Your task to perform on an android device: stop showing notifications on the lock screen Image 0: 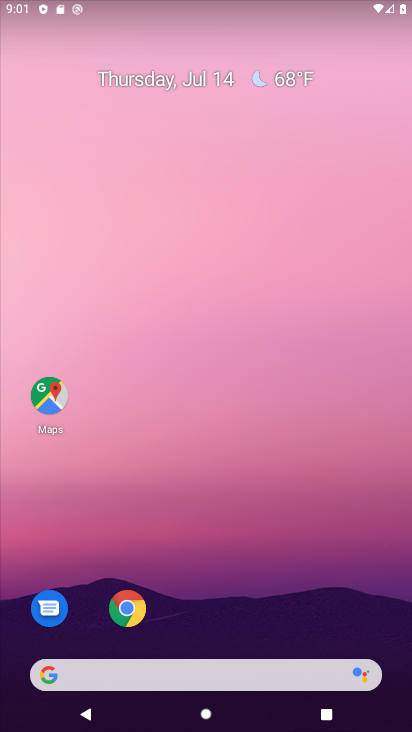
Step 0: drag from (217, 664) to (216, 140)
Your task to perform on an android device: stop showing notifications on the lock screen Image 1: 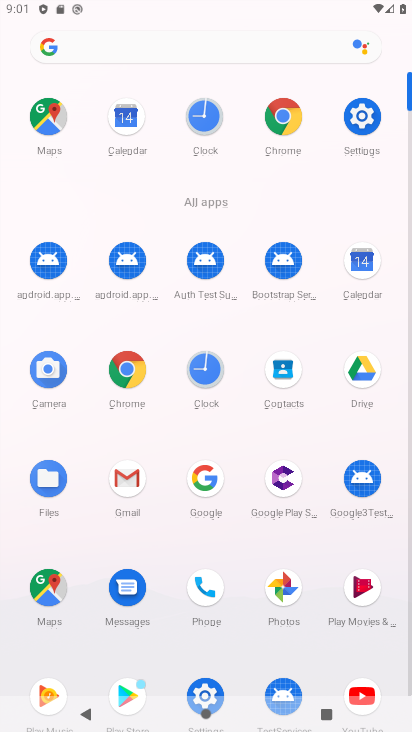
Step 1: click (361, 133)
Your task to perform on an android device: stop showing notifications on the lock screen Image 2: 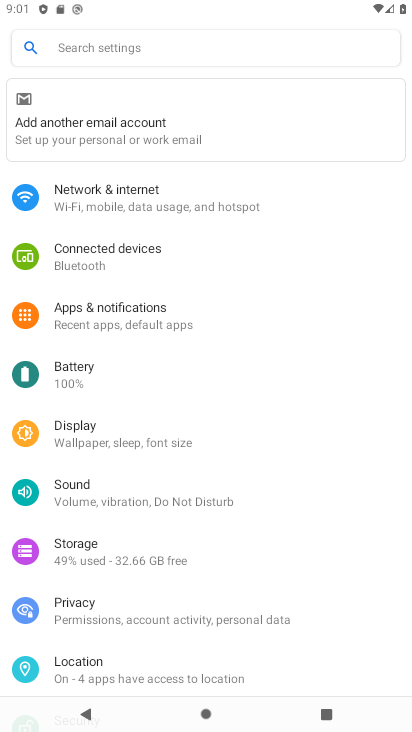
Step 2: click (93, 320)
Your task to perform on an android device: stop showing notifications on the lock screen Image 3: 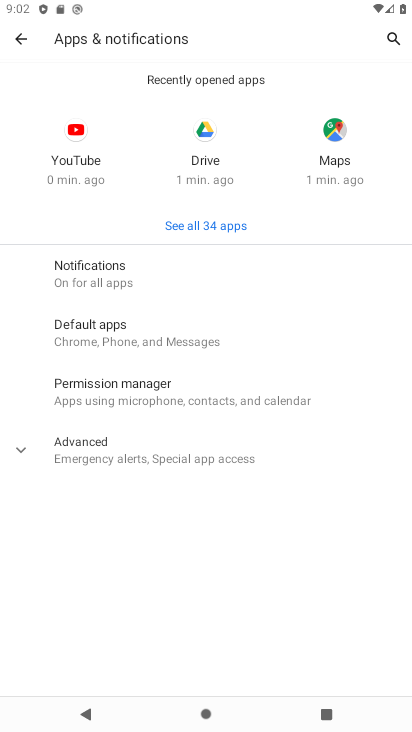
Step 3: click (68, 269)
Your task to perform on an android device: stop showing notifications on the lock screen Image 4: 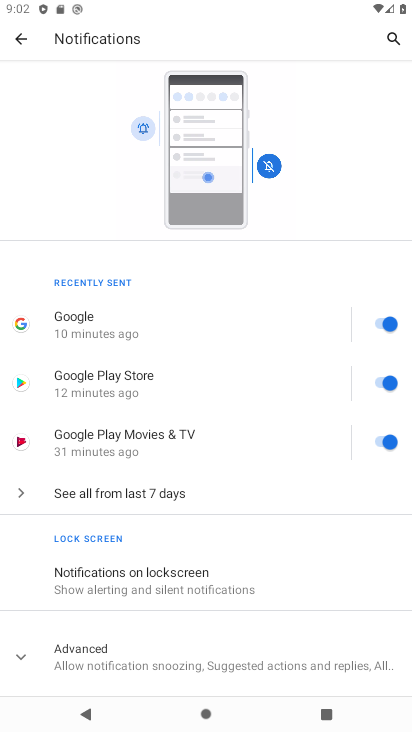
Step 4: click (128, 583)
Your task to perform on an android device: stop showing notifications on the lock screen Image 5: 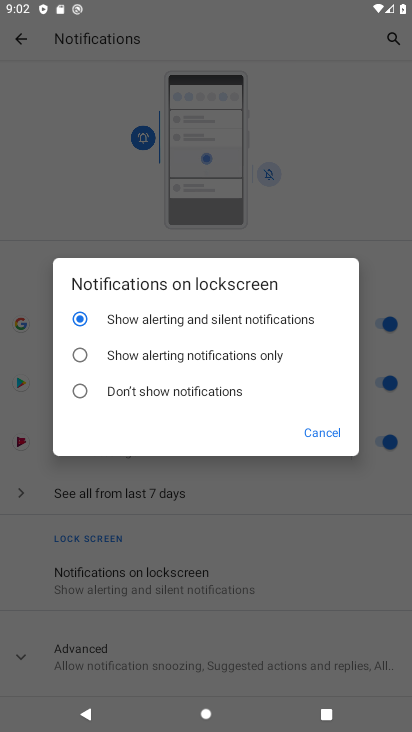
Step 5: click (149, 396)
Your task to perform on an android device: stop showing notifications on the lock screen Image 6: 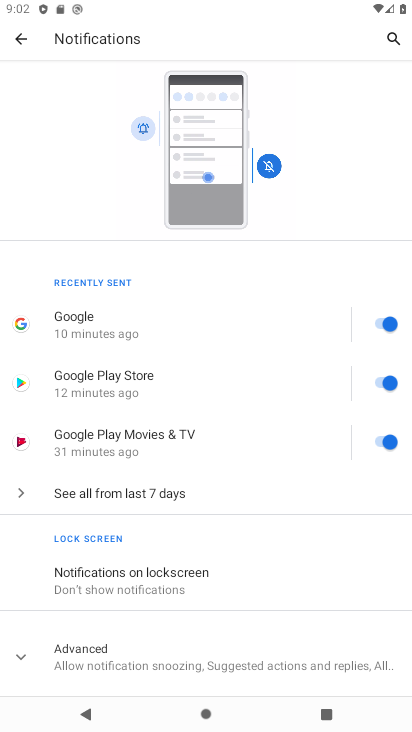
Step 6: task complete